Your task to perform on an android device: turn on priority inbox in the gmail app Image 0: 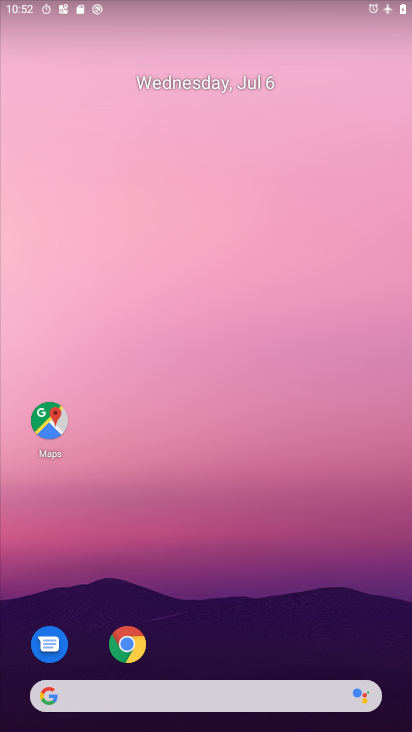
Step 0: drag from (190, 633) to (274, 205)
Your task to perform on an android device: turn on priority inbox in the gmail app Image 1: 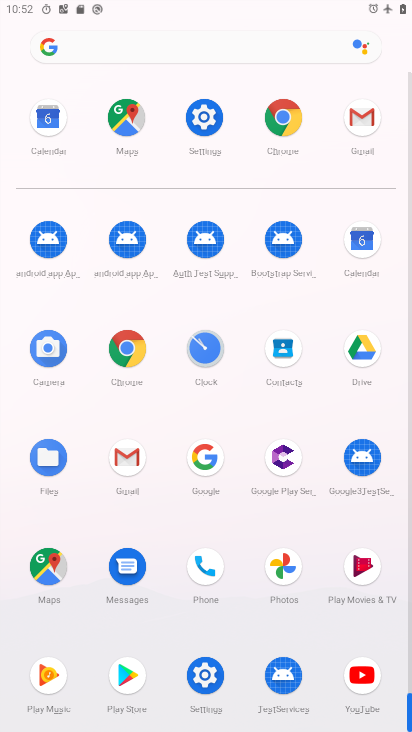
Step 1: click (125, 459)
Your task to perform on an android device: turn on priority inbox in the gmail app Image 2: 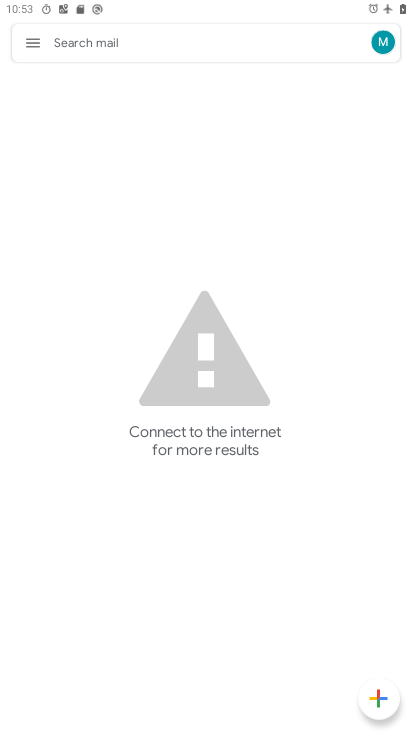
Step 2: click (29, 43)
Your task to perform on an android device: turn on priority inbox in the gmail app Image 3: 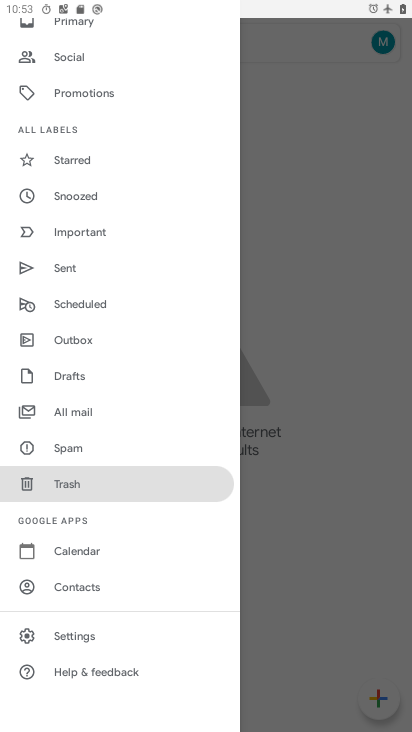
Step 3: click (76, 637)
Your task to perform on an android device: turn on priority inbox in the gmail app Image 4: 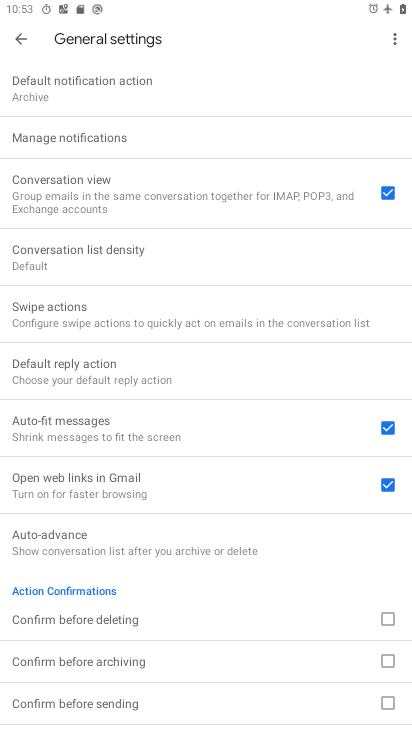
Step 4: drag from (119, 214) to (123, 547)
Your task to perform on an android device: turn on priority inbox in the gmail app Image 5: 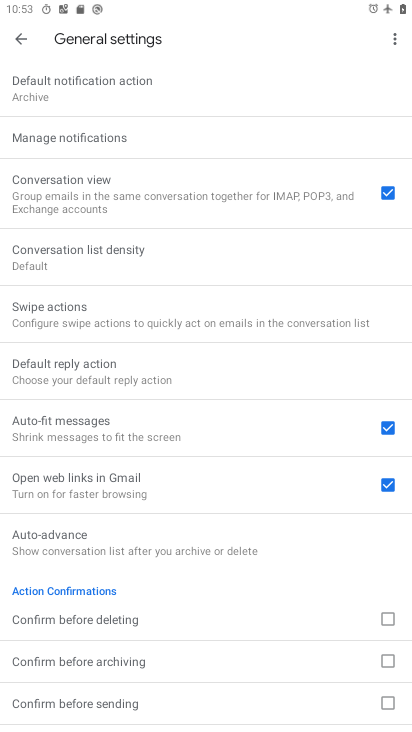
Step 5: click (12, 40)
Your task to perform on an android device: turn on priority inbox in the gmail app Image 6: 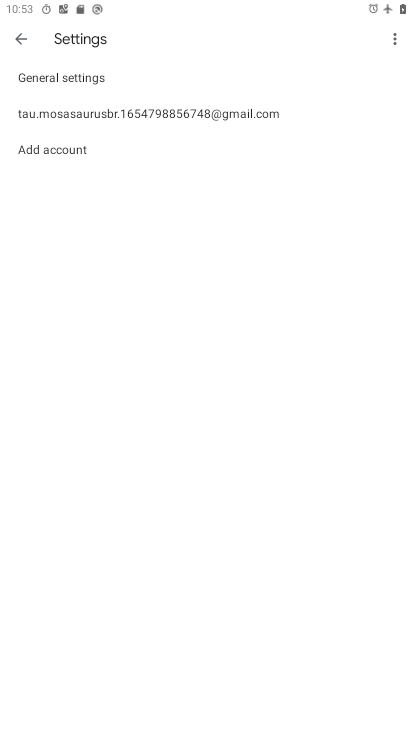
Step 6: click (70, 84)
Your task to perform on an android device: turn on priority inbox in the gmail app Image 7: 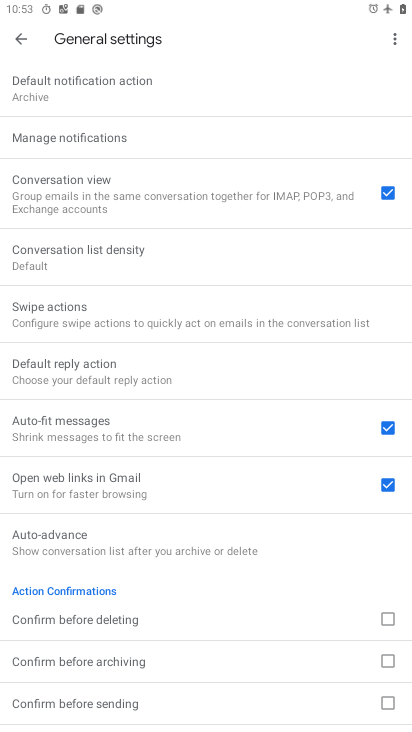
Step 7: drag from (97, 323) to (104, 214)
Your task to perform on an android device: turn on priority inbox in the gmail app Image 8: 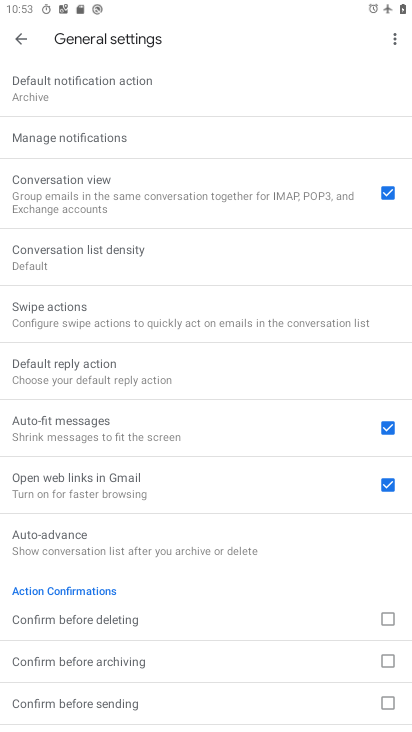
Step 8: click (18, 36)
Your task to perform on an android device: turn on priority inbox in the gmail app Image 9: 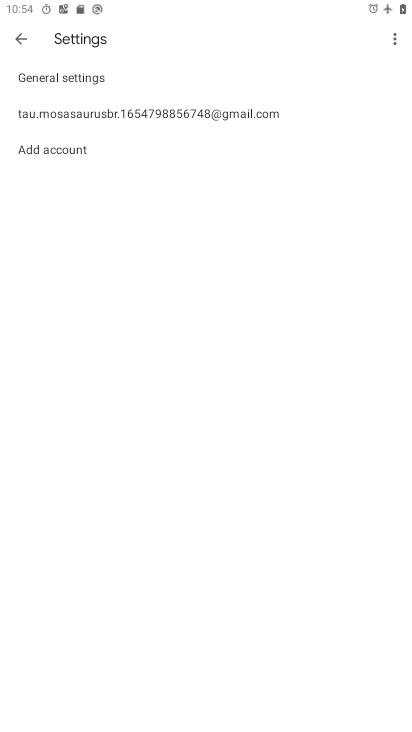
Step 9: click (117, 106)
Your task to perform on an android device: turn on priority inbox in the gmail app Image 10: 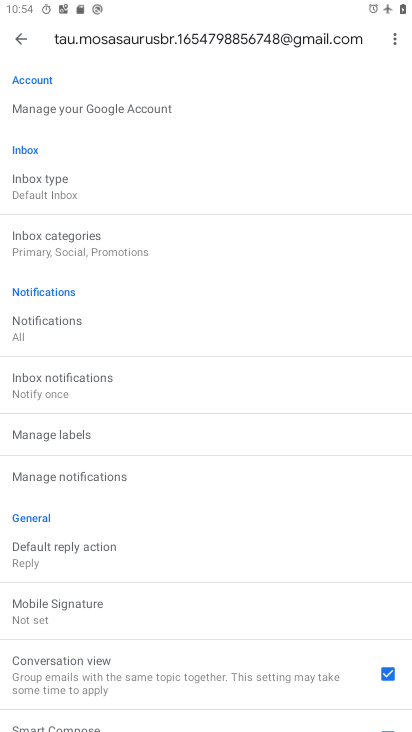
Step 10: click (96, 242)
Your task to perform on an android device: turn on priority inbox in the gmail app Image 11: 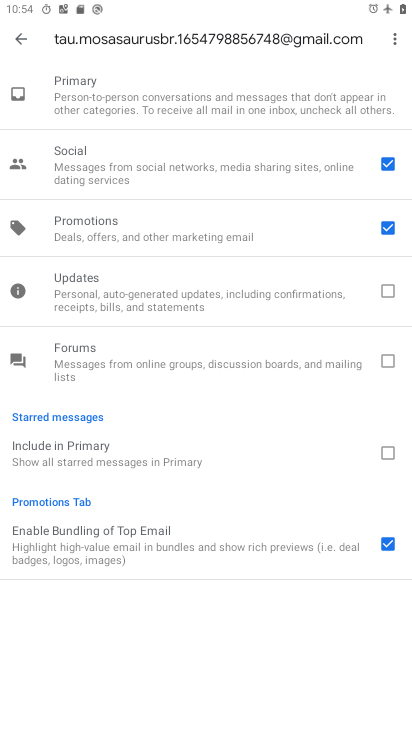
Step 11: click (27, 43)
Your task to perform on an android device: turn on priority inbox in the gmail app Image 12: 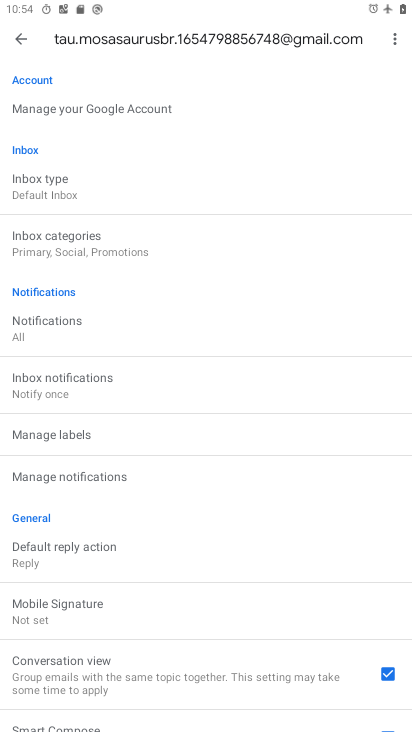
Step 12: click (59, 181)
Your task to perform on an android device: turn on priority inbox in the gmail app Image 13: 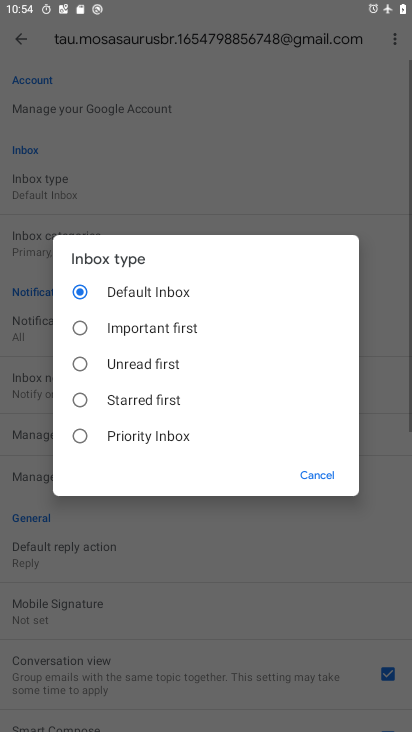
Step 13: click (159, 430)
Your task to perform on an android device: turn on priority inbox in the gmail app Image 14: 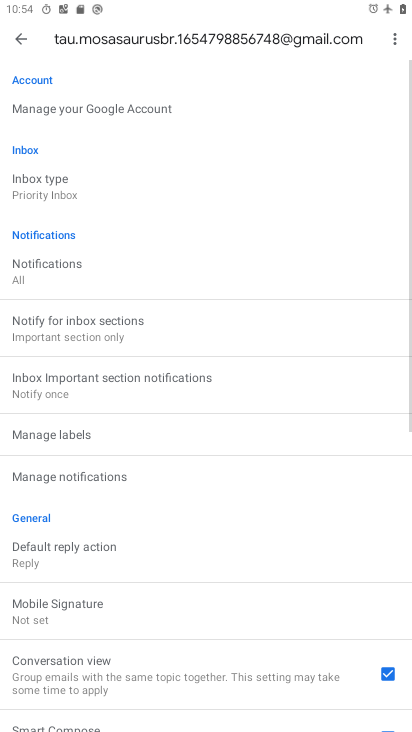
Step 14: task complete